Your task to perform on an android device: delete the emails in spam in the gmail app Image 0: 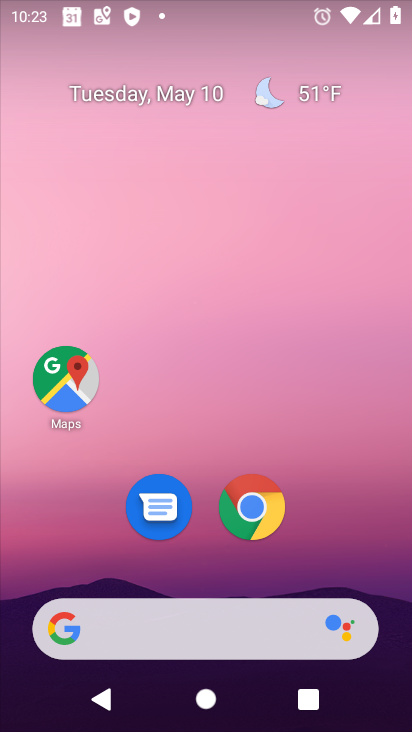
Step 0: drag from (199, 559) to (217, 69)
Your task to perform on an android device: delete the emails in spam in the gmail app Image 1: 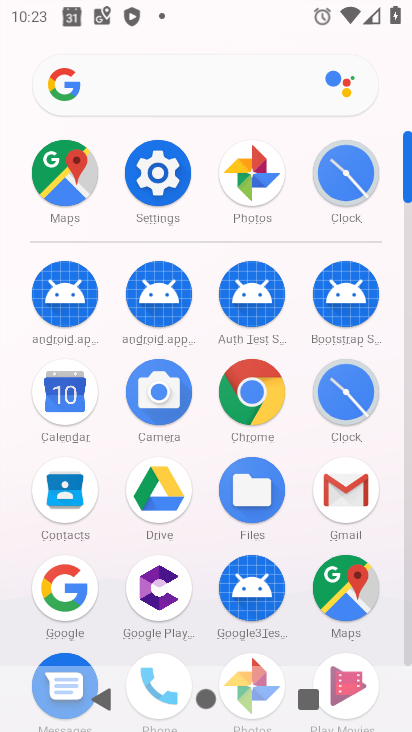
Step 1: click (369, 500)
Your task to perform on an android device: delete the emails in spam in the gmail app Image 2: 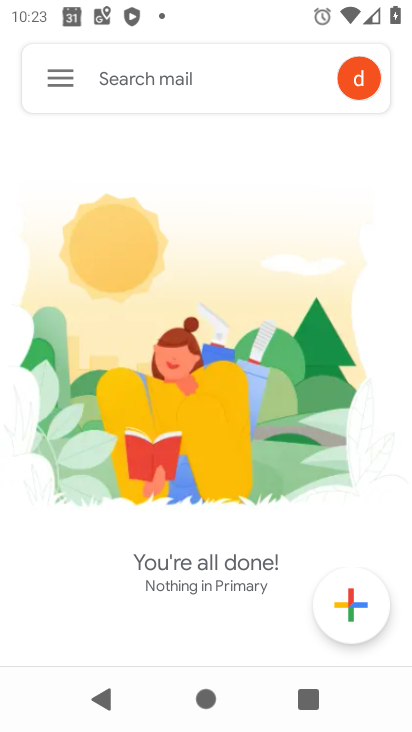
Step 2: click (59, 86)
Your task to perform on an android device: delete the emails in spam in the gmail app Image 3: 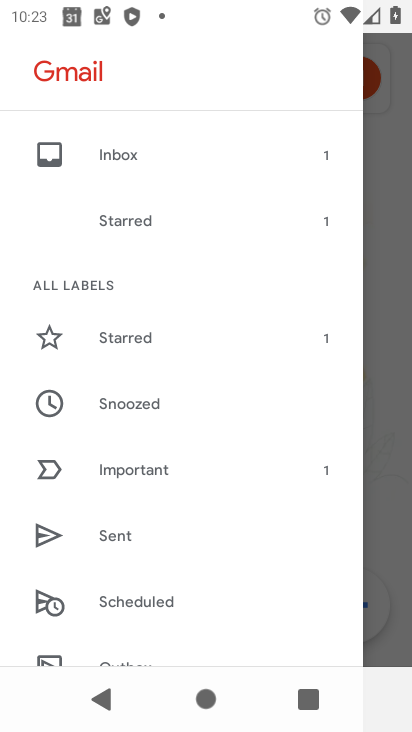
Step 3: drag from (193, 540) to (219, 300)
Your task to perform on an android device: delete the emails in spam in the gmail app Image 4: 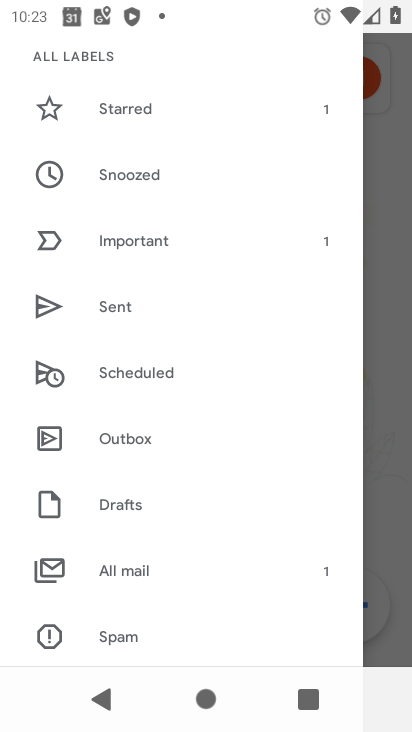
Step 4: click (144, 635)
Your task to perform on an android device: delete the emails in spam in the gmail app Image 5: 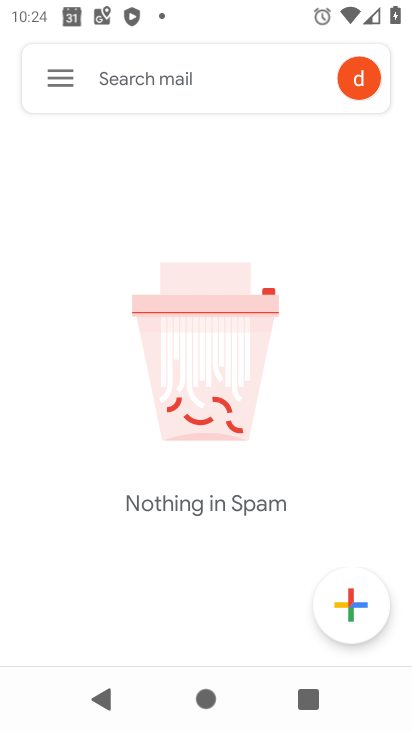
Step 5: task complete